Your task to perform on an android device: open wifi settings Image 0: 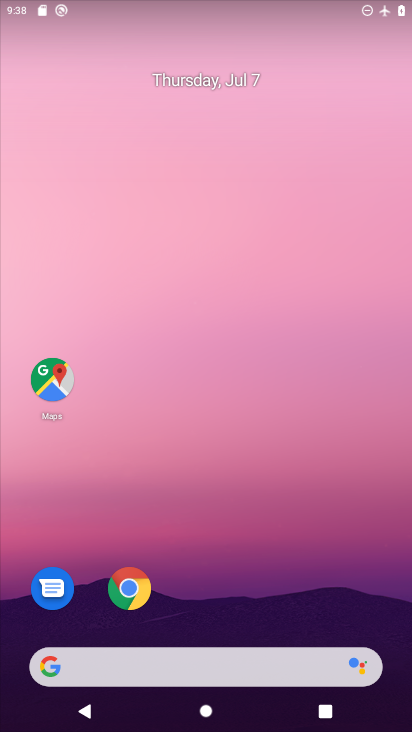
Step 0: drag from (202, 115) to (249, 502)
Your task to perform on an android device: open wifi settings Image 1: 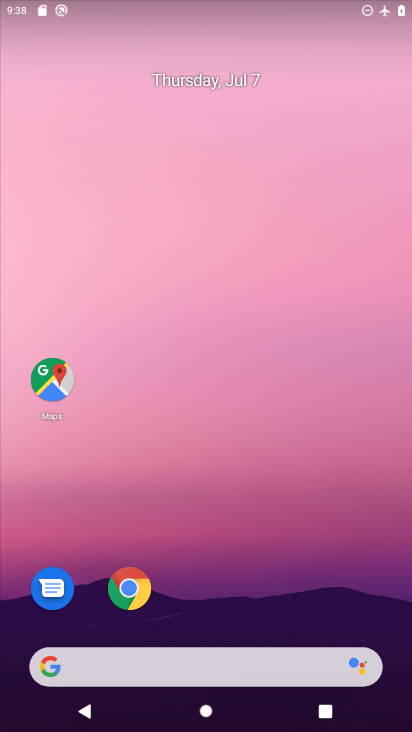
Step 1: drag from (281, 8) to (306, 537)
Your task to perform on an android device: open wifi settings Image 2: 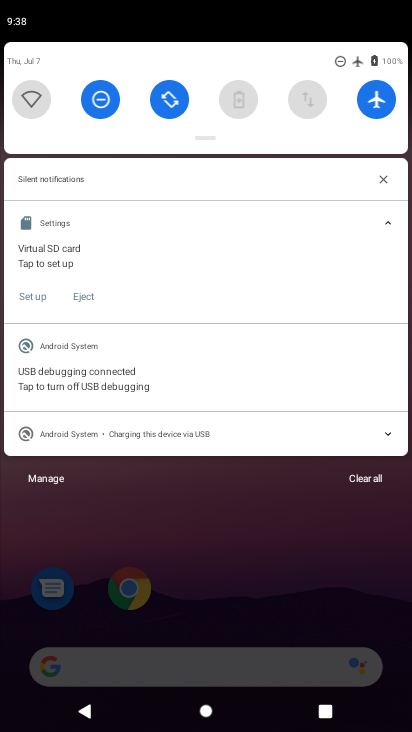
Step 2: click (45, 97)
Your task to perform on an android device: open wifi settings Image 3: 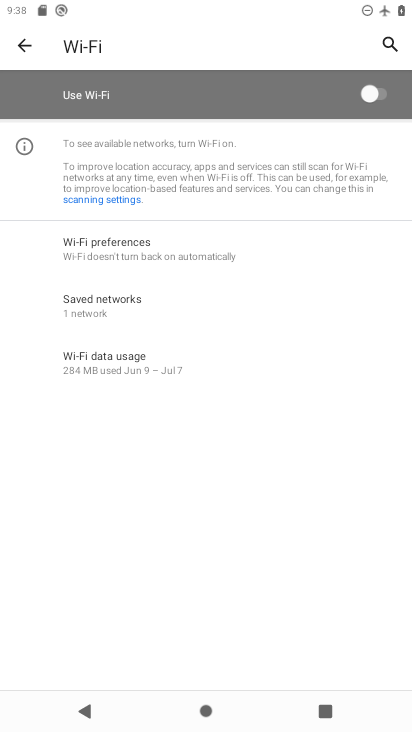
Step 3: task complete